Your task to perform on an android device: clear all cookies in the chrome app Image 0: 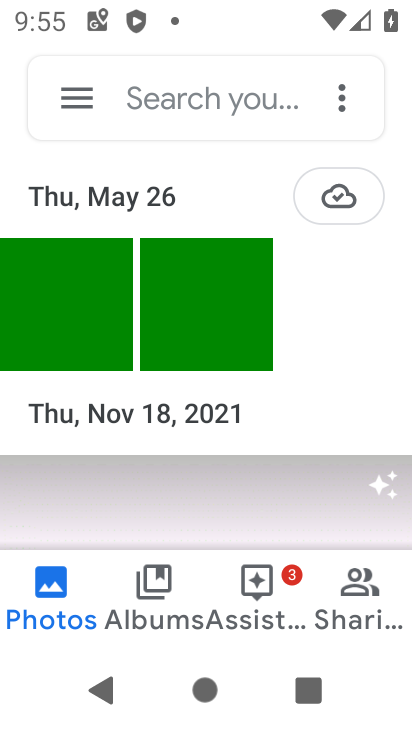
Step 0: press home button
Your task to perform on an android device: clear all cookies in the chrome app Image 1: 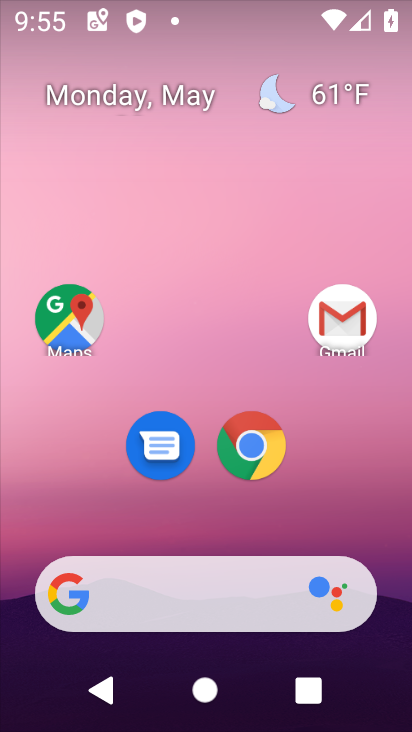
Step 1: drag from (373, 459) to (367, 188)
Your task to perform on an android device: clear all cookies in the chrome app Image 2: 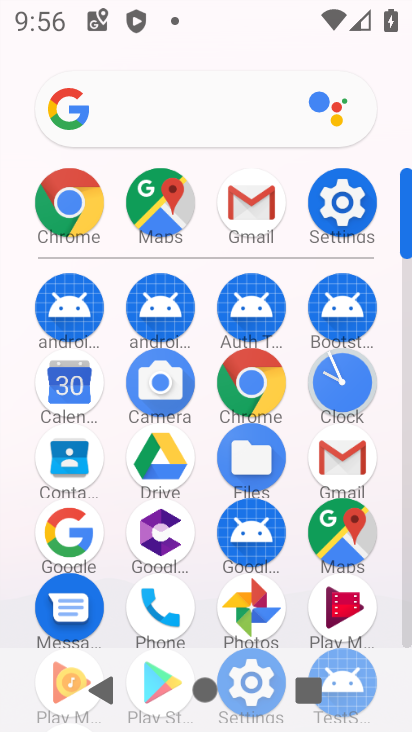
Step 2: click (260, 392)
Your task to perform on an android device: clear all cookies in the chrome app Image 3: 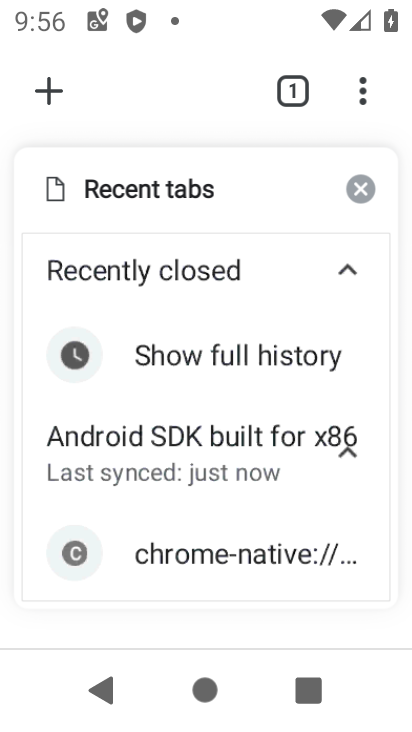
Step 3: click (364, 100)
Your task to perform on an android device: clear all cookies in the chrome app Image 4: 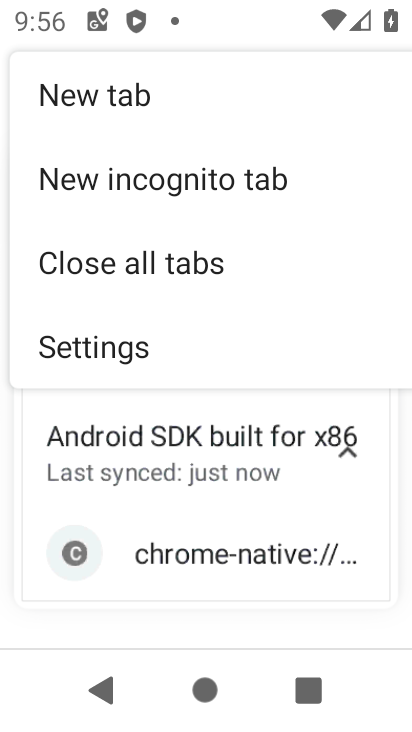
Step 4: click (147, 345)
Your task to perform on an android device: clear all cookies in the chrome app Image 5: 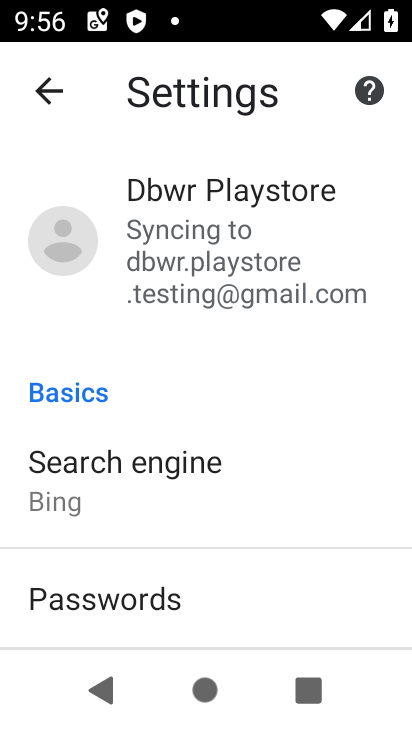
Step 5: drag from (286, 544) to (300, 288)
Your task to perform on an android device: clear all cookies in the chrome app Image 6: 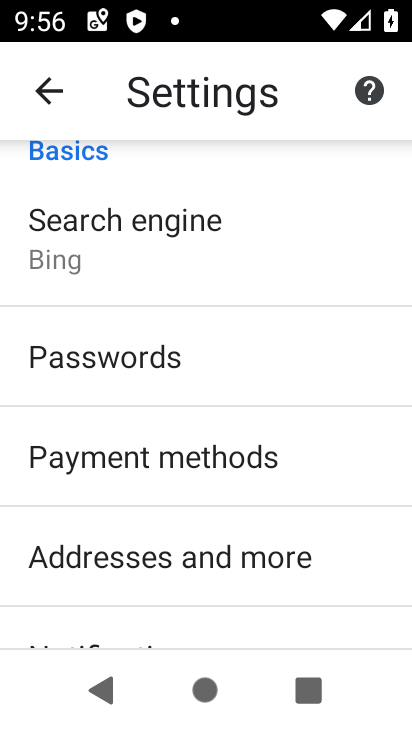
Step 6: drag from (350, 581) to (321, 320)
Your task to perform on an android device: clear all cookies in the chrome app Image 7: 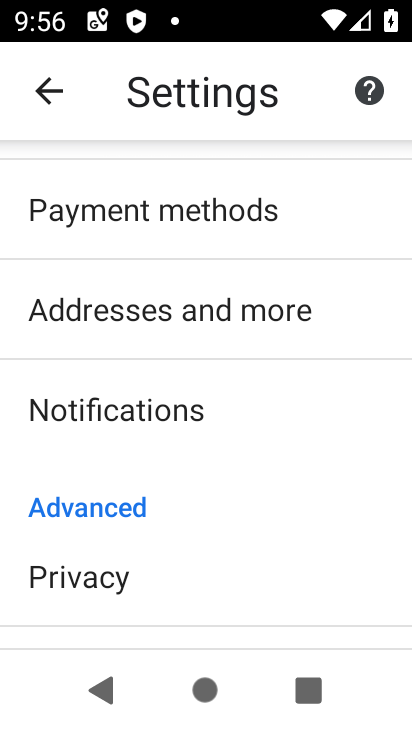
Step 7: drag from (316, 542) to (291, 352)
Your task to perform on an android device: clear all cookies in the chrome app Image 8: 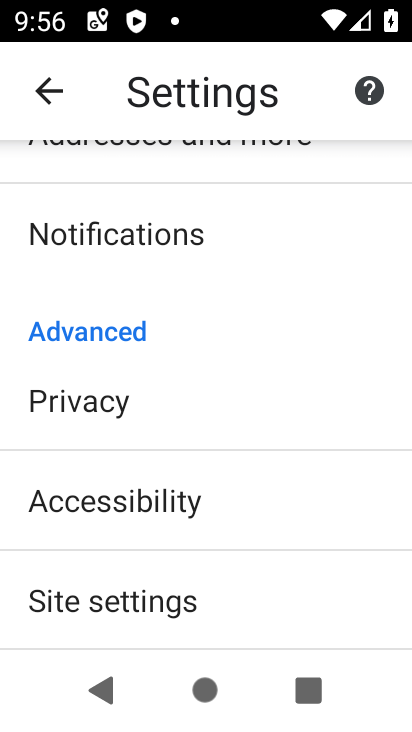
Step 8: drag from (294, 556) to (288, 416)
Your task to perform on an android device: clear all cookies in the chrome app Image 9: 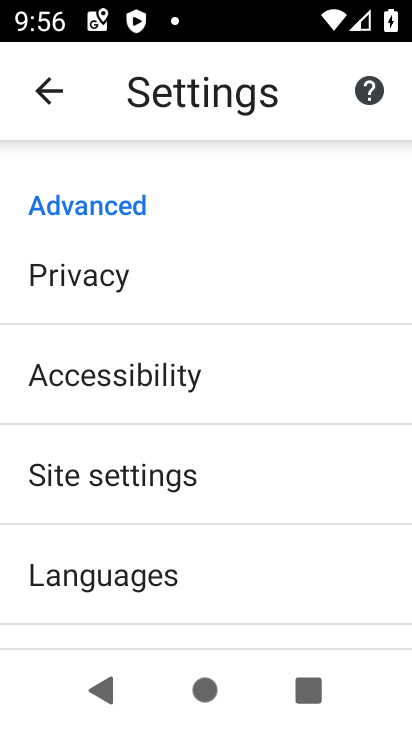
Step 9: drag from (315, 598) to (316, 464)
Your task to perform on an android device: clear all cookies in the chrome app Image 10: 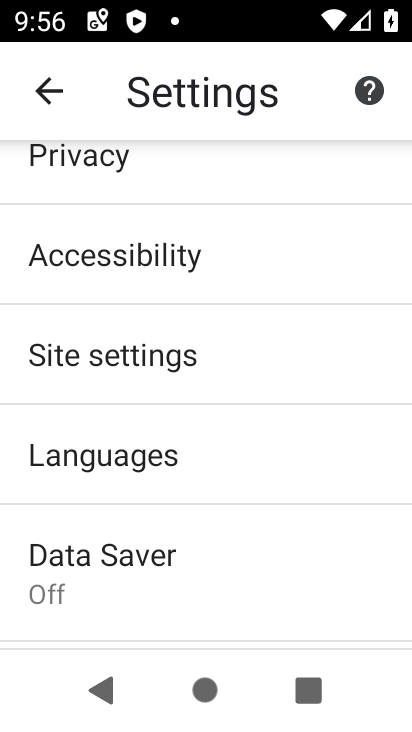
Step 10: drag from (311, 588) to (300, 478)
Your task to perform on an android device: clear all cookies in the chrome app Image 11: 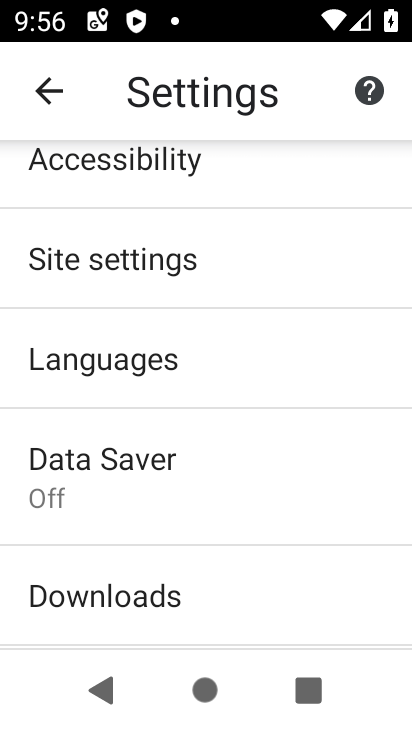
Step 11: drag from (292, 307) to (296, 418)
Your task to perform on an android device: clear all cookies in the chrome app Image 12: 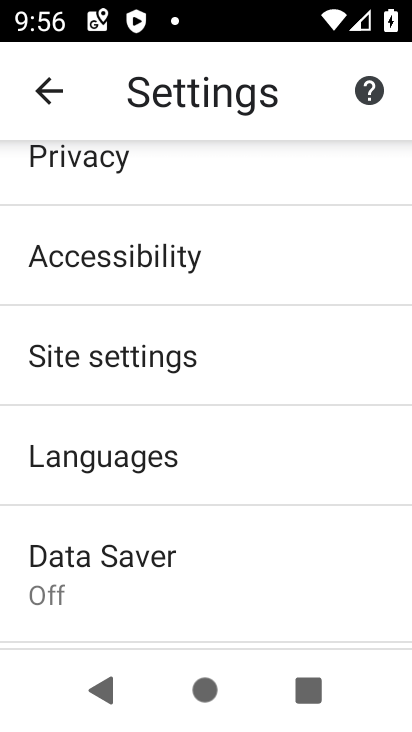
Step 12: drag from (262, 253) to (268, 388)
Your task to perform on an android device: clear all cookies in the chrome app Image 13: 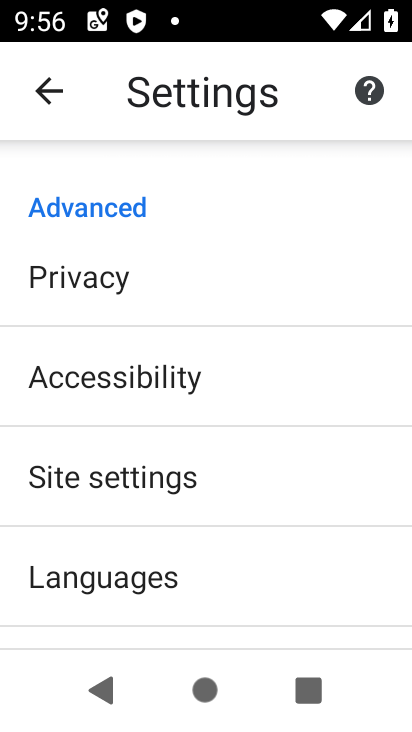
Step 13: click (189, 288)
Your task to perform on an android device: clear all cookies in the chrome app Image 14: 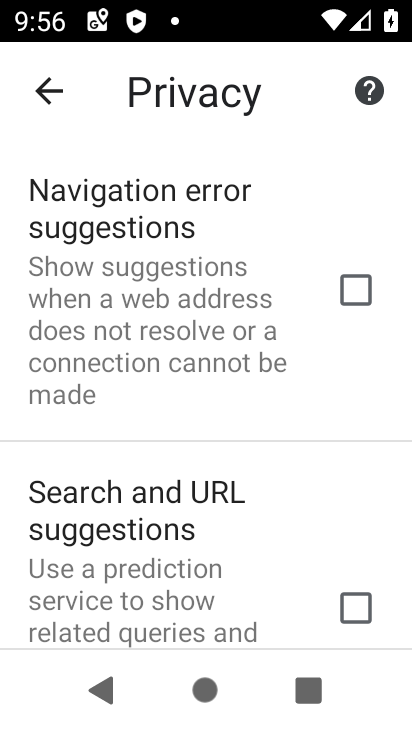
Step 14: drag from (303, 468) to (295, 326)
Your task to perform on an android device: clear all cookies in the chrome app Image 15: 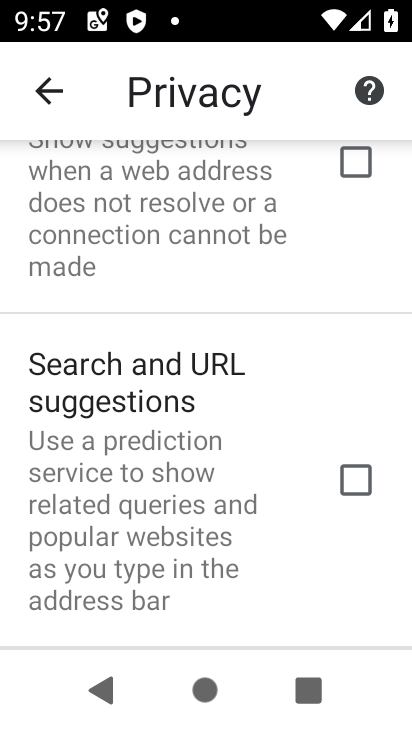
Step 15: drag from (291, 510) to (280, 349)
Your task to perform on an android device: clear all cookies in the chrome app Image 16: 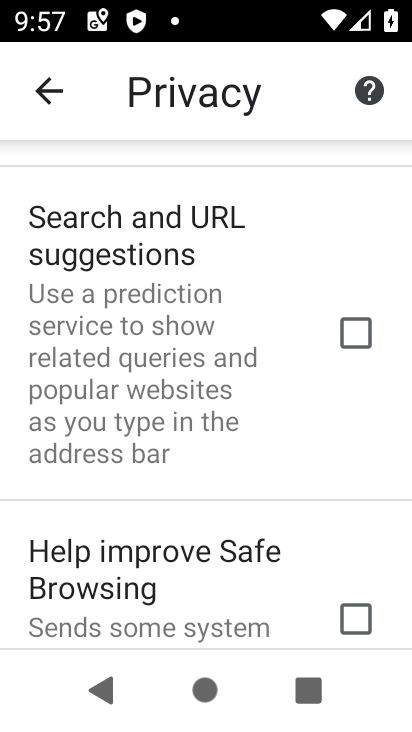
Step 16: drag from (295, 546) to (282, 377)
Your task to perform on an android device: clear all cookies in the chrome app Image 17: 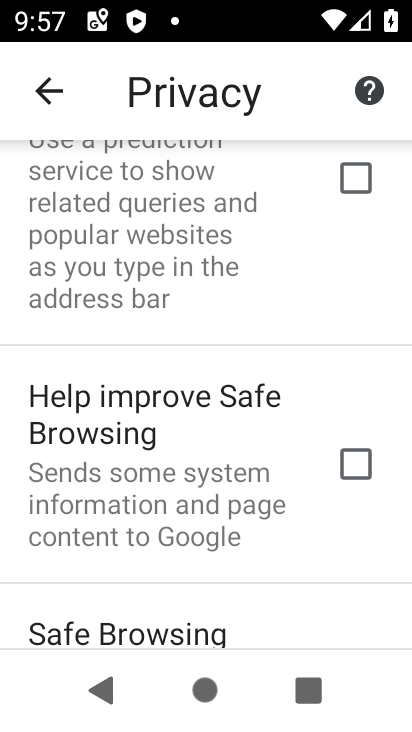
Step 17: drag from (296, 576) to (286, 384)
Your task to perform on an android device: clear all cookies in the chrome app Image 18: 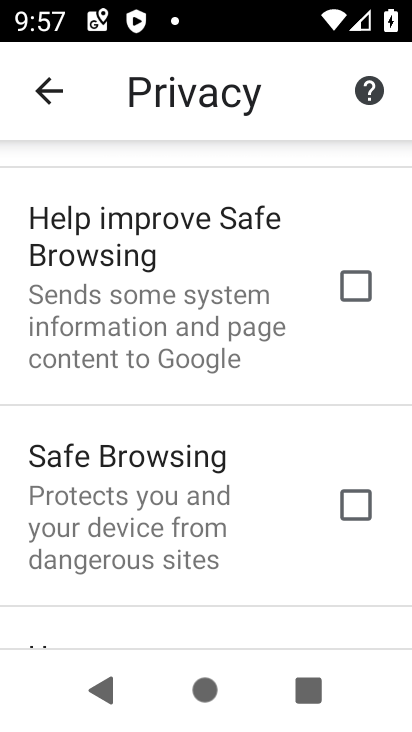
Step 18: drag from (290, 559) to (287, 411)
Your task to perform on an android device: clear all cookies in the chrome app Image 19: 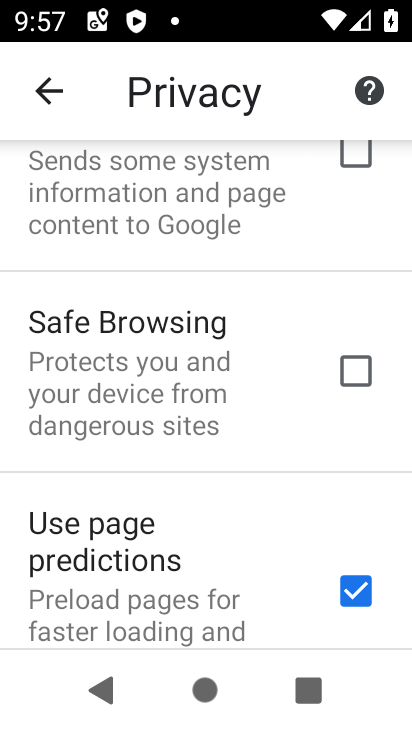
Step 19: drag from (278, 586) to (283, 435)
Your task to perform on an android device: clear all cookies in the chrome app Image 20: 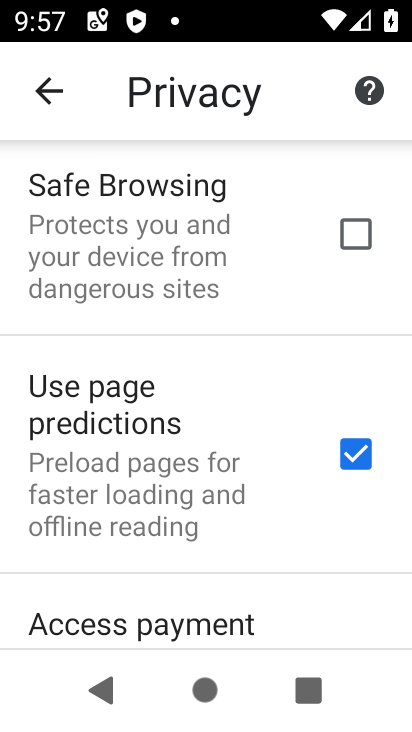
Step 20: drag from (294, 581) to (278, 434)
Your task to perform on an android device: clear all cookies in the chrome app Image 21: 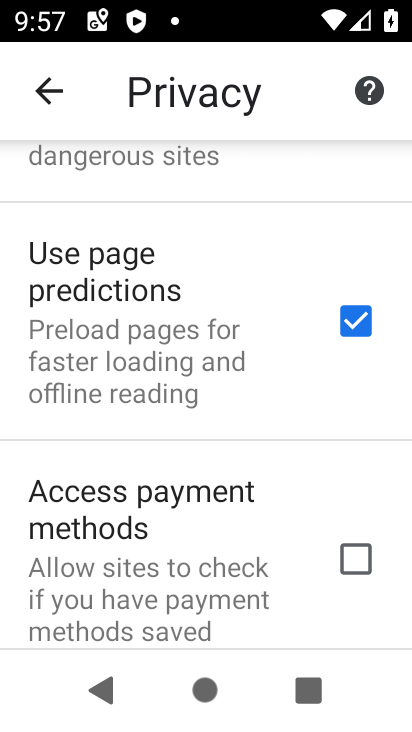
Step 21: drag from (291, 586) to (283, 422)
Your task to perform on an android device: clear all cookies in the chrome app Image 22: 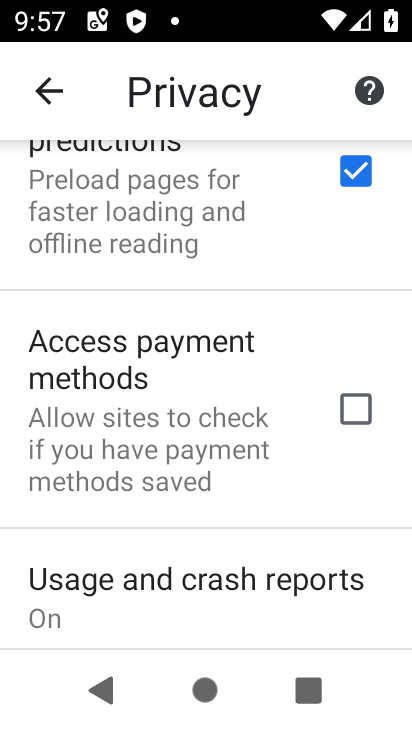
Step 22: drag from (275, 585) to (283, 414)
Your task to perform on an android device: clear all cookies in the chrome app Image 23: 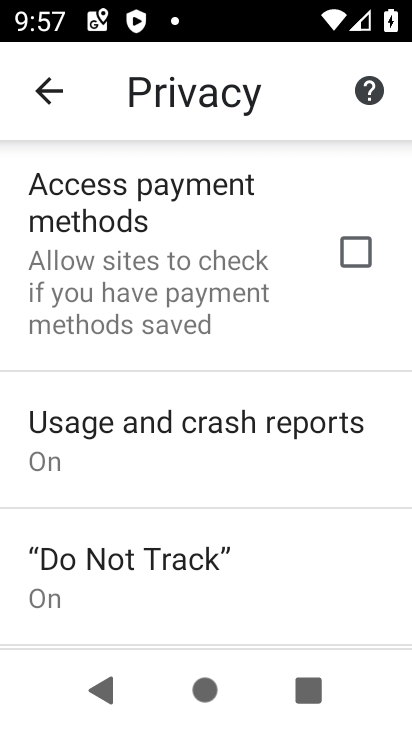
Step 23: drag from (291, 564) to (297, 371)
Your task to perform on an android device: clear all cookies in the chrome app Image 24: 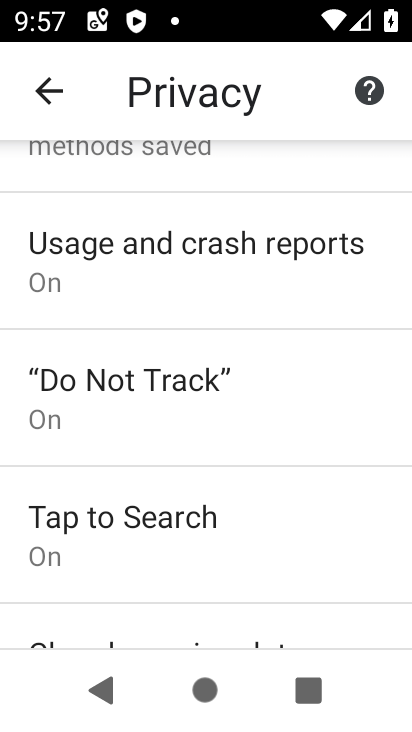
Step 24: drag from (308, 543) to (315, 389)
Your task to perform on an android device: clear all cookies in the chrome app Image 25: 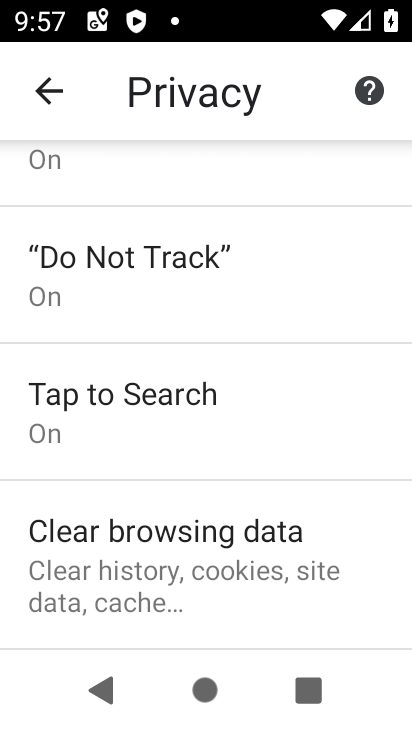
Step 25: click (264, 550)
Your task to perform on an android device: clear all cookies in the chrome app Image 26: 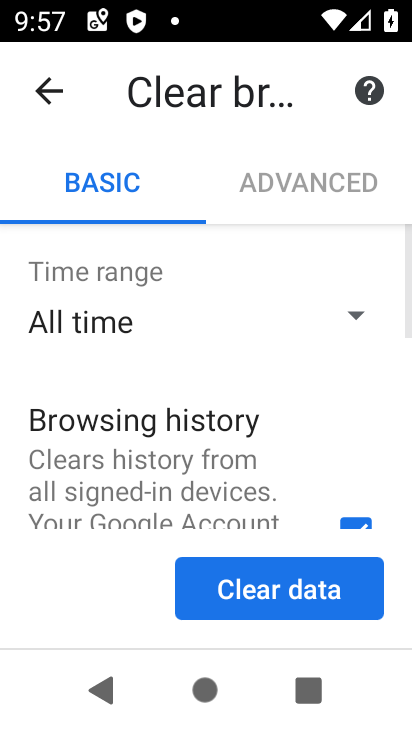
Step 26: click (266, 590)
Your task to perform on an android device: clear all cookies in the chrome app Image 27: 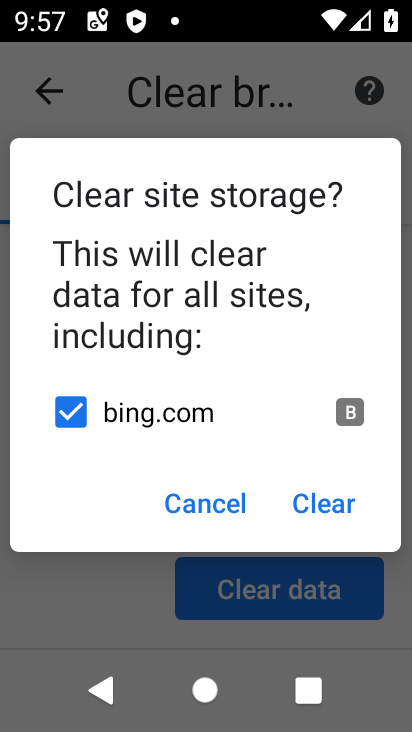
Step 27: click (304, 516)
Your task to perform on an android device: clear all cookies in the chrome app Image 28: 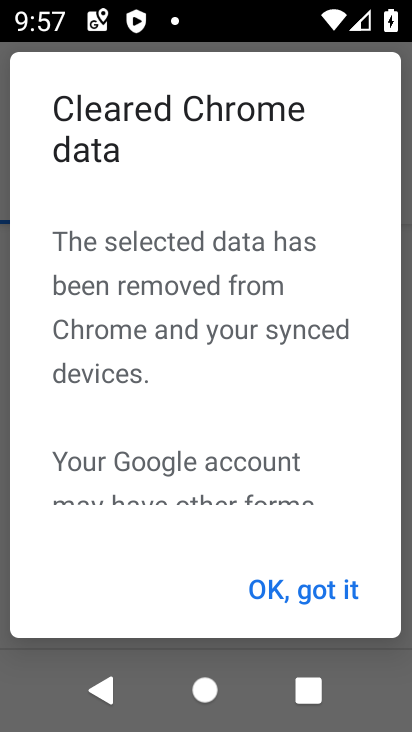
Step 28: click (336, 603)
Your task to perform on an android device: clear all cookies in the chrome app Image 29: 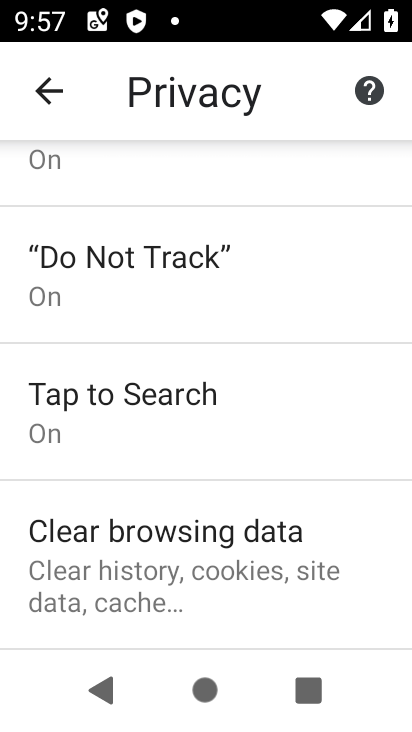
Step 29: task complete